Your task to perform on an android device: Play the last video I watched on Youtube Image 0: 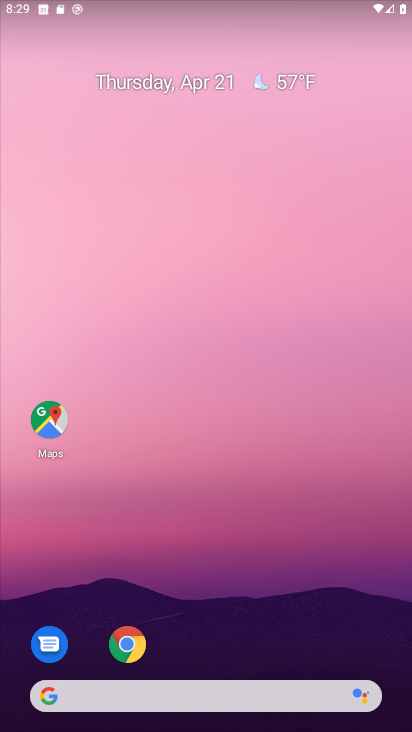
Step 0: drag from (245, 600) to (253, 49)
Your task to perform on an android device: Play the last video I watched on Youtube Image 1: 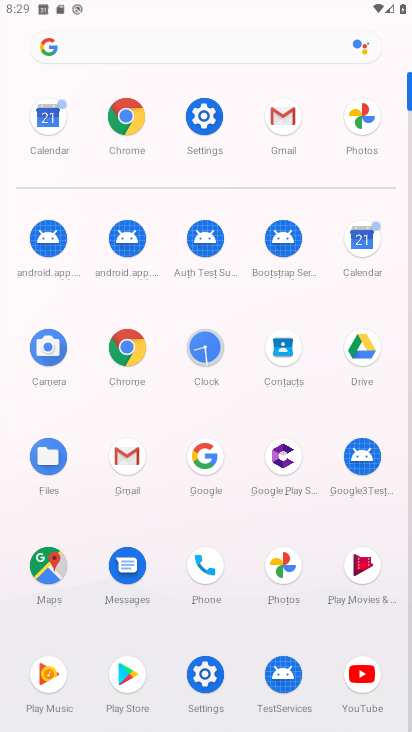
Step 1: click (356, 680)
Your task to perform on an android device: Play the last video I watched on Youtube Image 2: 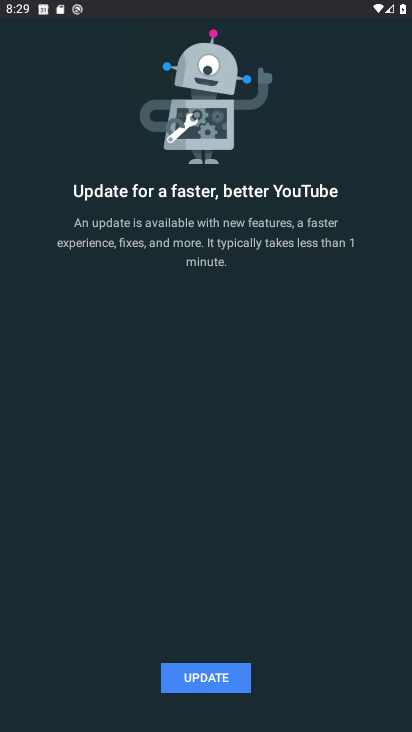
Step 2: click (231, 678)
Your task to perform on an android device: Play the last video I watched on Youtube Image 3: 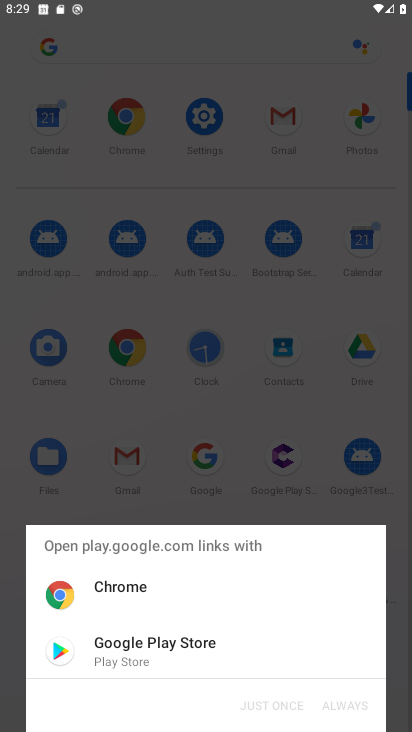
Step 3: click (167, 644)
Your task to perform on an android device: Play the last video I watched on Youtube Image 4: 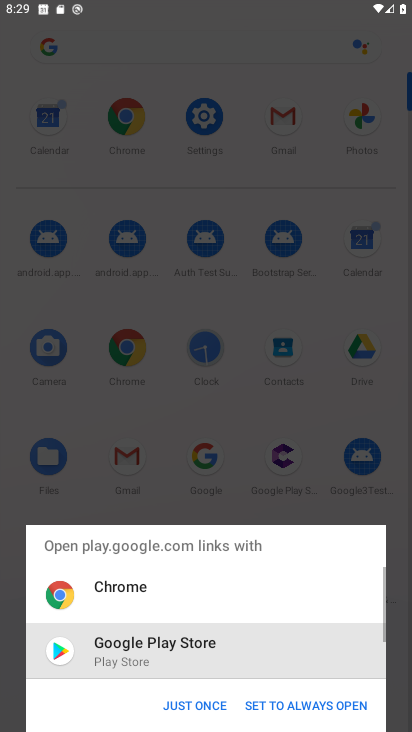
Step 4: click (187, 700)
Your task to perform on an android device: Play the last video I watched on Youtube Image 5: 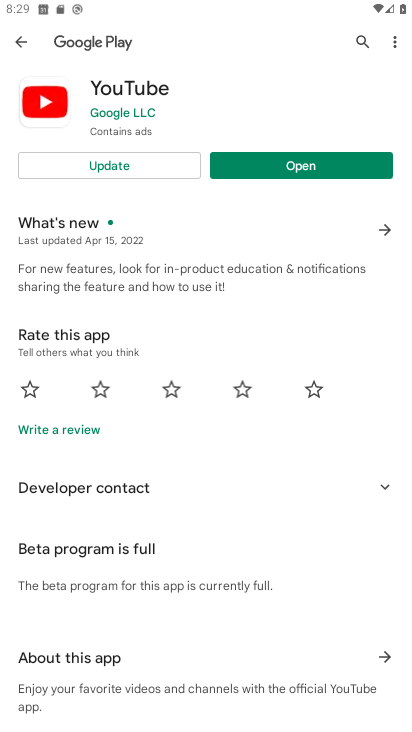
Step 5: click (118, 171)
Your task to perform on an android device: Play the last video I watched on Youtube Image 6: 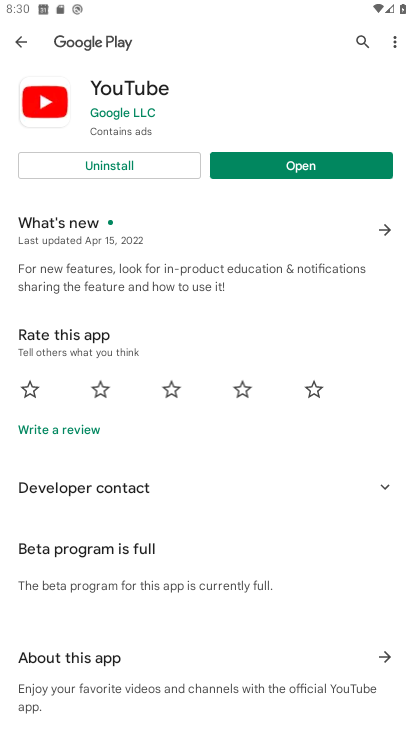
Step 6: click (328, 167)
Your task to perform on an android device: Play the last video I watched on Youtube Image 7: 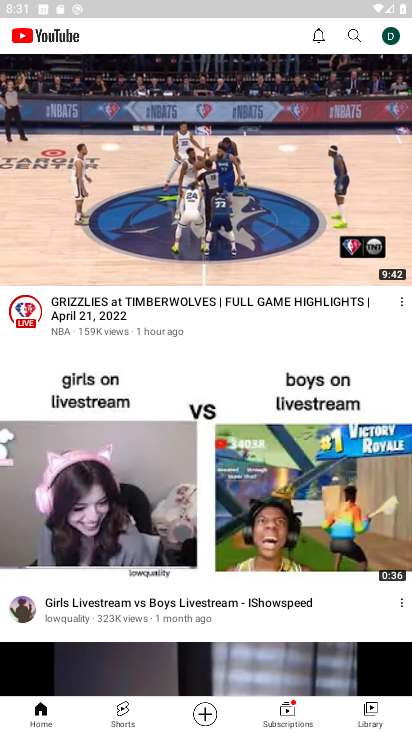
Step 7: click (367, 709)
Your task to perform on an android device: Play the last video I watched on Youtube Image 8: 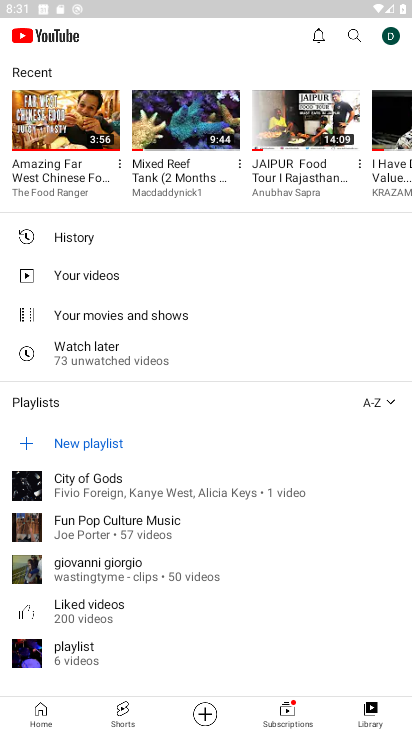
Step 8: click (48, 134)
Your task to perform on an android device: Play the last video I watched on Youtube Image 9: 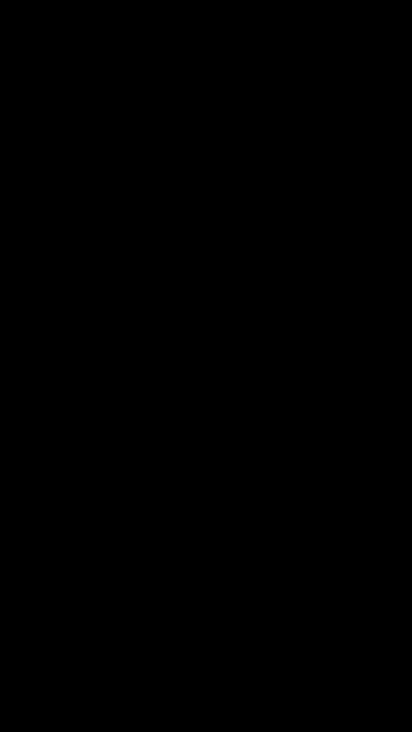
Step 9: task complete